Your task to perform on an android device: Go to calendar. Show me events next week Image 0: 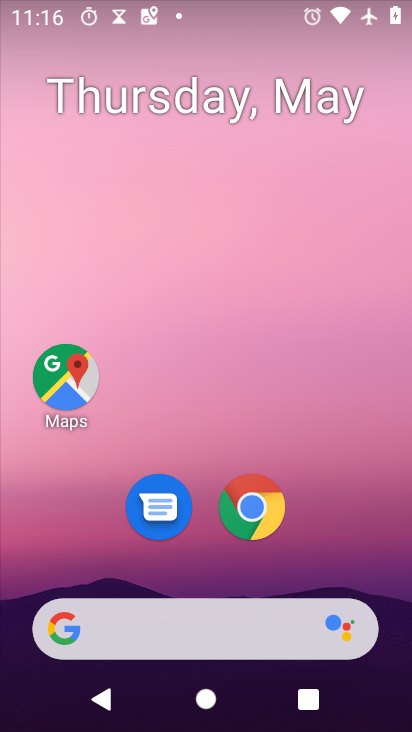
Step 0: drag from (313, 542) to (284, 43)
Your task to perform on an android device: Go to calendar. Show me events next week Image 1: 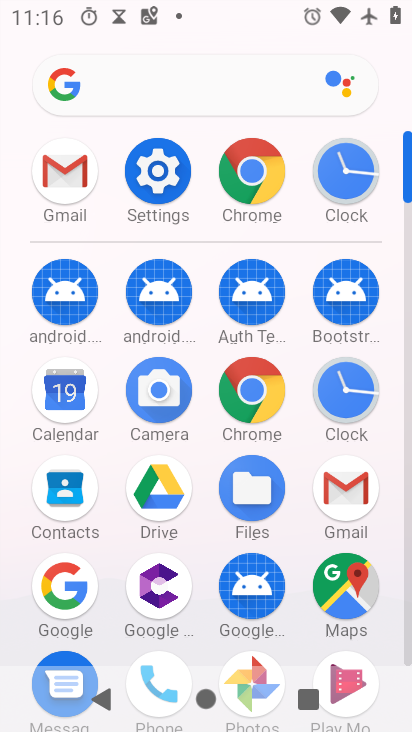
Step 1: drag from (13, 547) to (0, 248)
Your task to perform on an android device: Go to calendar. Show me events next week Image 2: 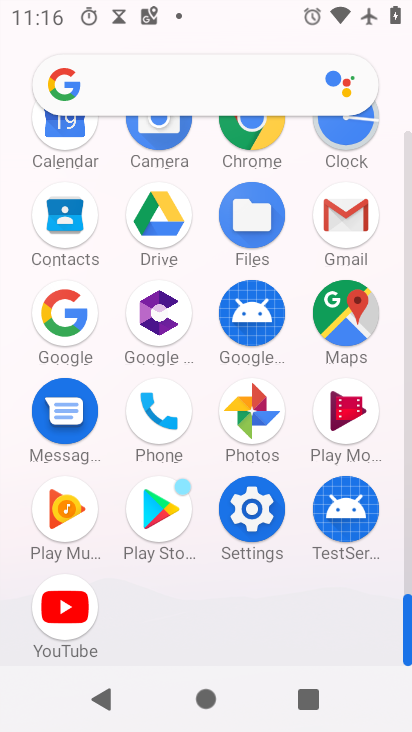
Step 2: drag from (22, 590) to (17, 330)
Your task to perform on an android device: Go to calendar. Show me events next week Image 3: 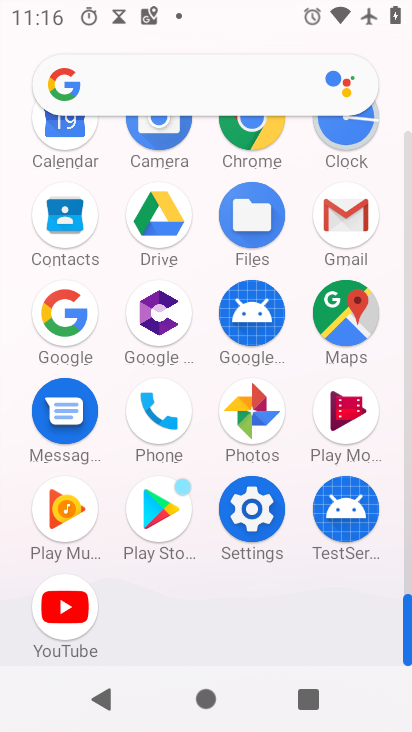
Step 3: drag from (12, 548) to (32, 208)
Your task to perform on an android device: Go to calendar. Show me events next week Image 4: 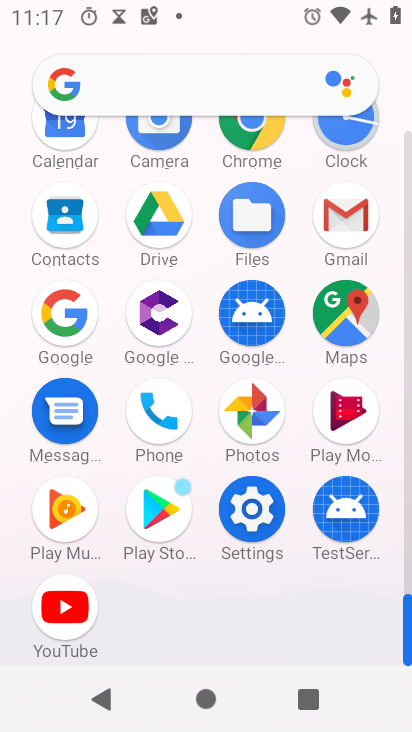
Step 4: drag from (7, 165) to (4, 457)
Your task to perform on an android device: Go to calendar. Show me events next week Image 5: 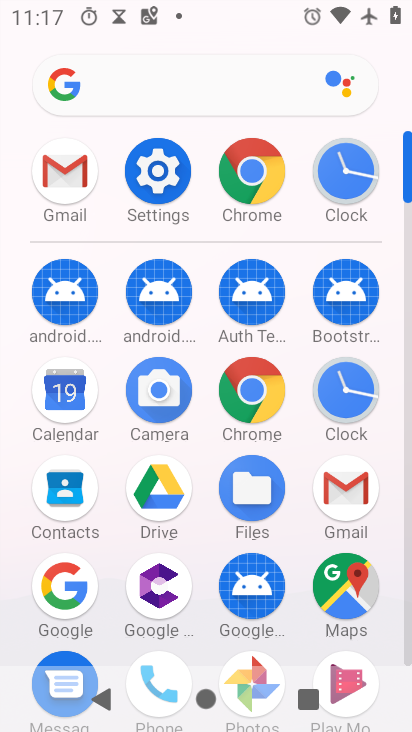
Step 5: click (66, 394)
Your task to perform on an android device: Go to calendar. Show me events next week Image 6: 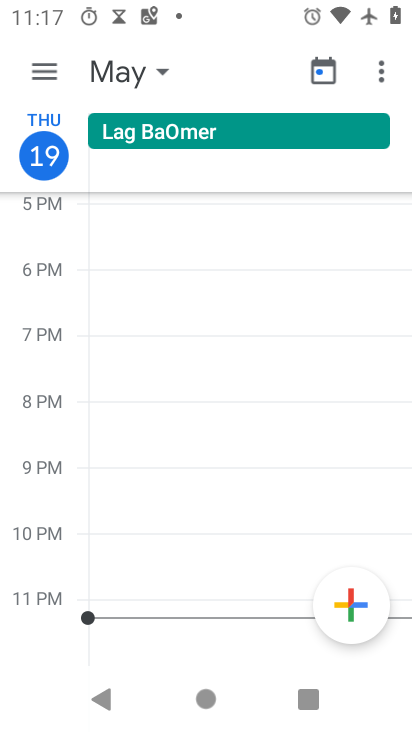
Step 6: click (143, 68)
Your task to perform on an android device: Go to calendar. Show me events next week Image 7: 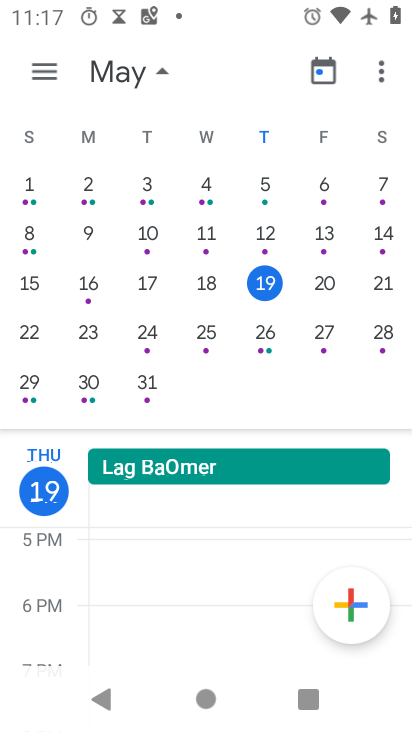
Step 7: click (57, 66)
Your task to perform on an android device: Go to calendar. Show me events next week Image 8: 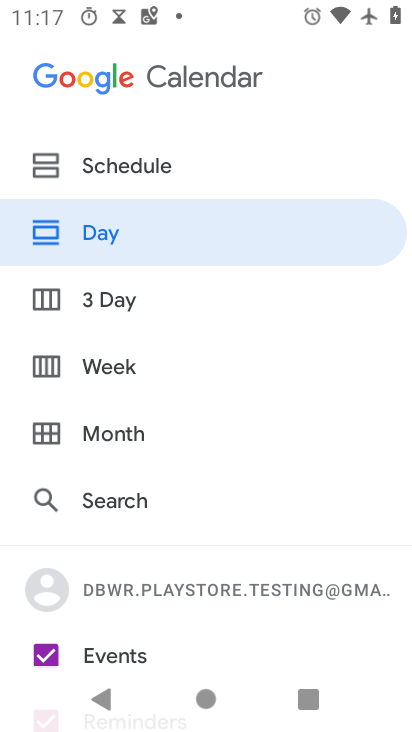
Step 8: click (127, 370)
Your task to perform on an android device: Go to calendar. Show me events next week Image 9: 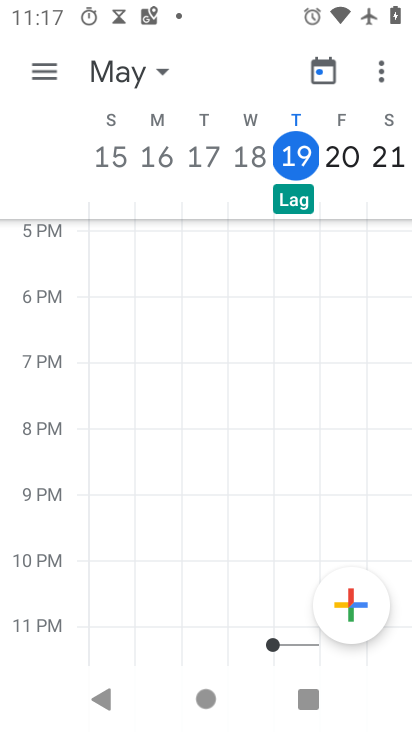
Step 9: task complete